Your task to perform on an android device: Open network settings Image 0: 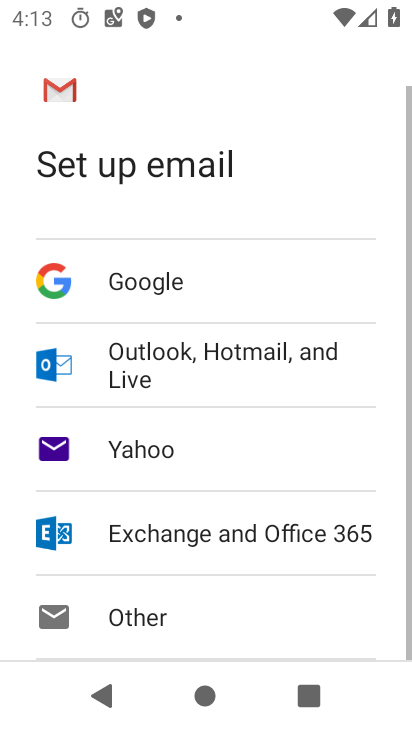
Step 0: press home button
Your task to perform on an android device: Open network settings Image 1: 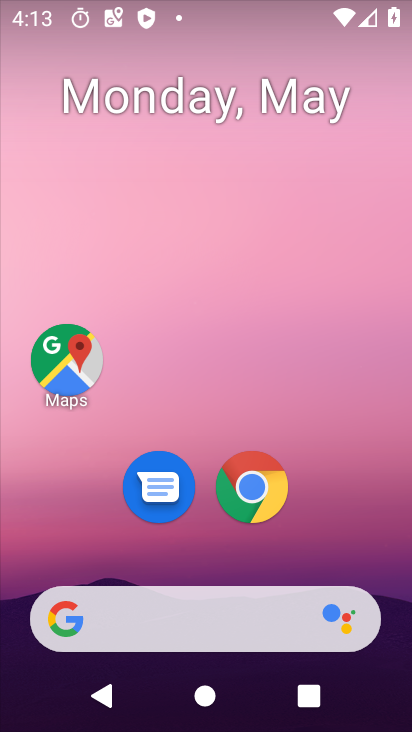
Step 1: drag from (228, 559) to (209, 260)
Your task to perform on an android device: Open network settings Image 2: 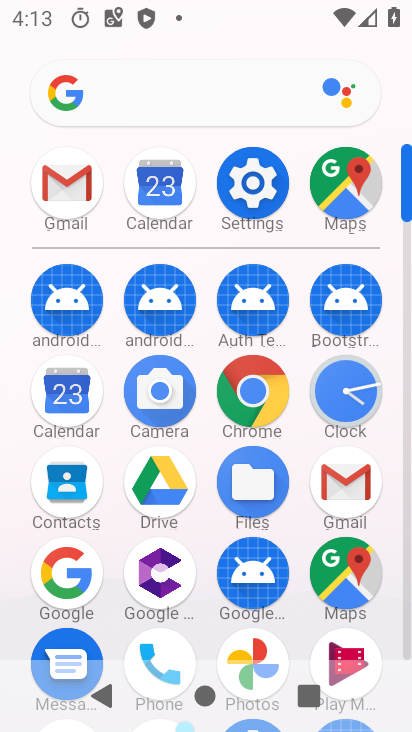
Step 2: click (233, 190)
Your task to perform on an android device: Open network settings Image 3: 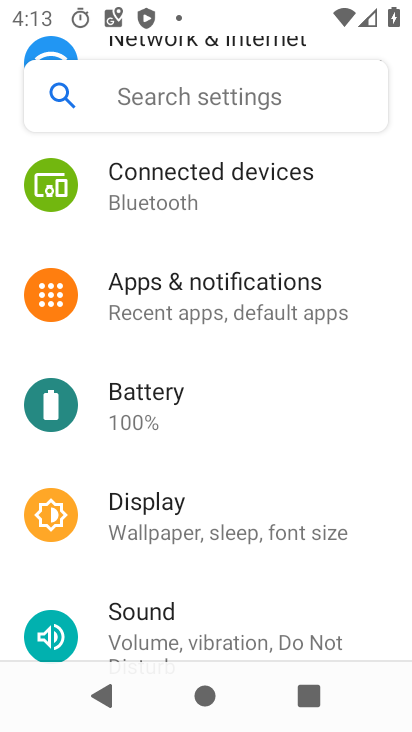
Step 3: drag from (229, 180) to (183, 607)
Your task to perform on an android device: Open network settings Image 4: 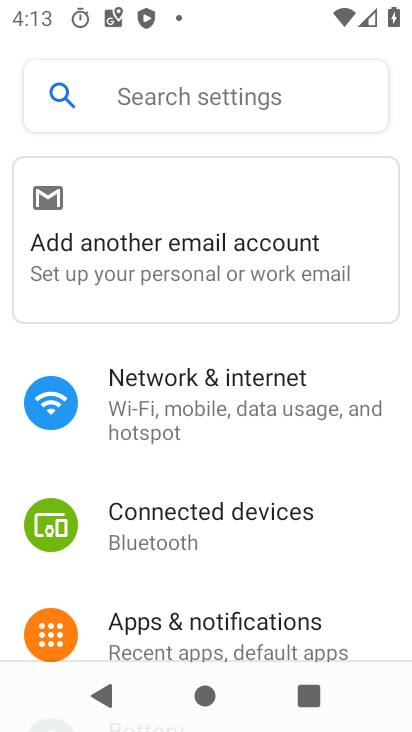
Step 4: click (179, 396)
Your task to perform on an android device: Open network settings Image 5: 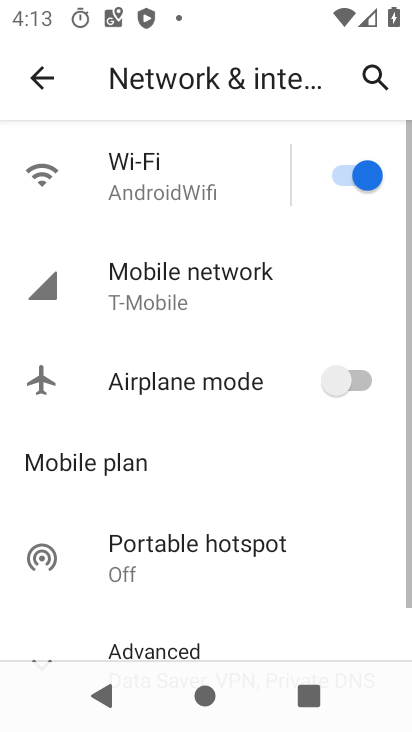
Step 5: click (179, 293)
Your task to perform on an android device: Open network settings Image 6: 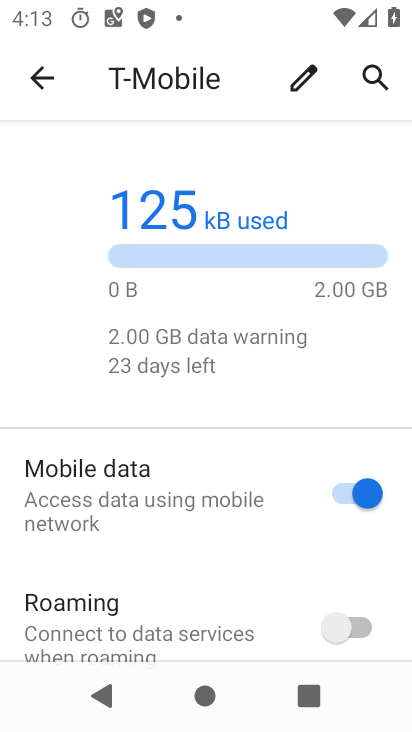
Step 6: task complete